Your task to perform on an android device: open app "Indeed Job Search" (install if not already installed) and enter user name: "quixotic@inbox.com" and password: "microphones" Image 0: 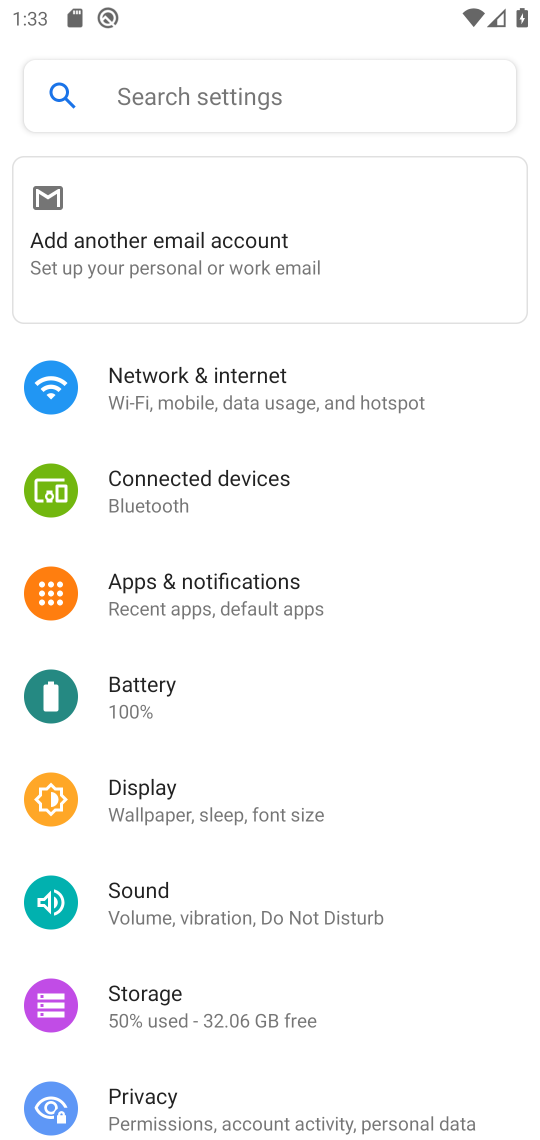
Step 0: press home button
Your task to perform on an android device: open app "Indeed Job Search" (install if not already installed) and enter user name: "quixotic@inbox.com" and password: "microphones" Image 1: 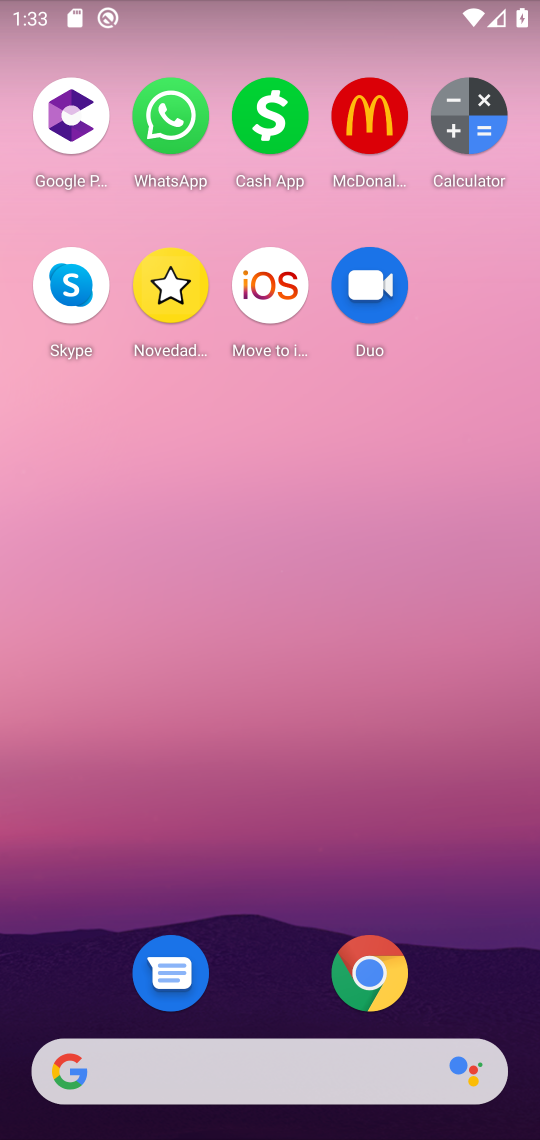
Step 1: click (271, 1022)
Your task to perform on an android device: open app "Indeed Job Search" (install if not already installed) and enter user name: "quixotic@inbox.com" and password: "microphones" Image 2: 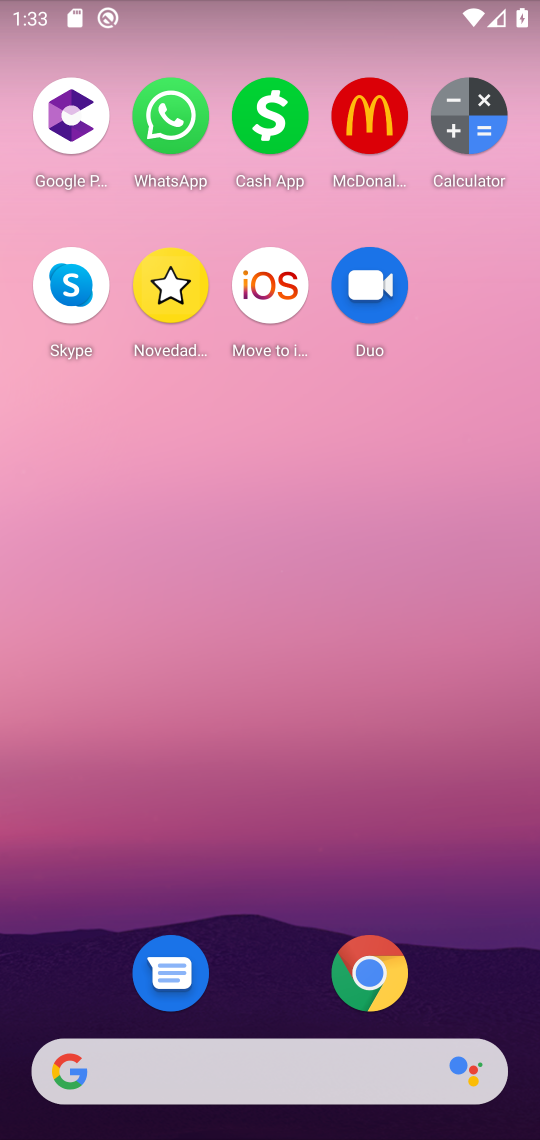
Step 2: drag from (271, 1022) to (283, 113)
Your task to perform on an android device: open app "Indeed Job Search" (install if not already installed) and enter user name: "quixotic@inbox.com" and password: "microphones" Image 3: 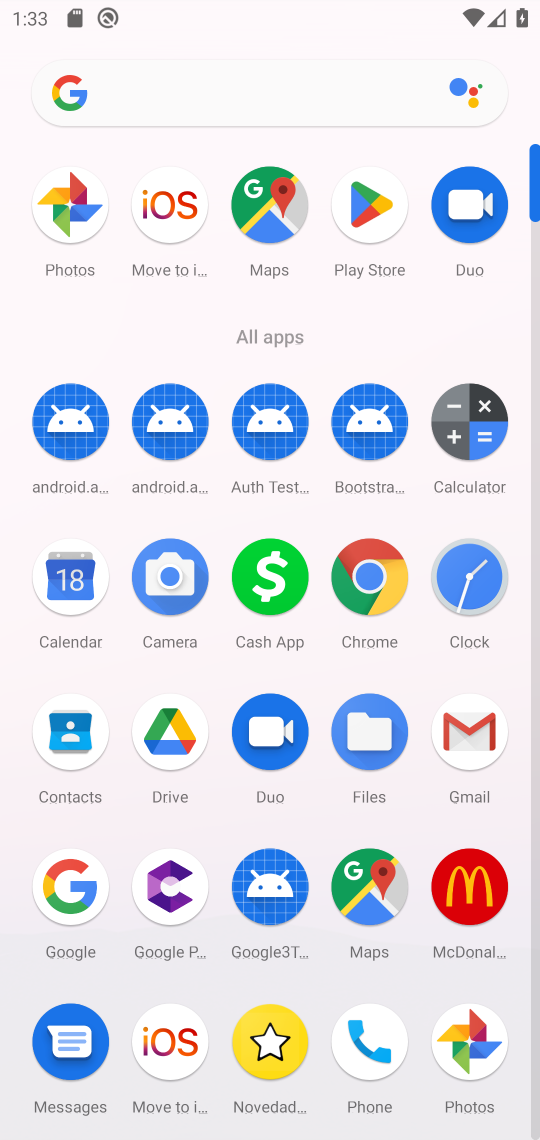
Step 3: click (376, 205)
Your task to perform on an android device: open app "Indeed Job Search" (install if not already installed) and enter user name: "quixotic@inbox.com" and password: "microphones" Image 4: 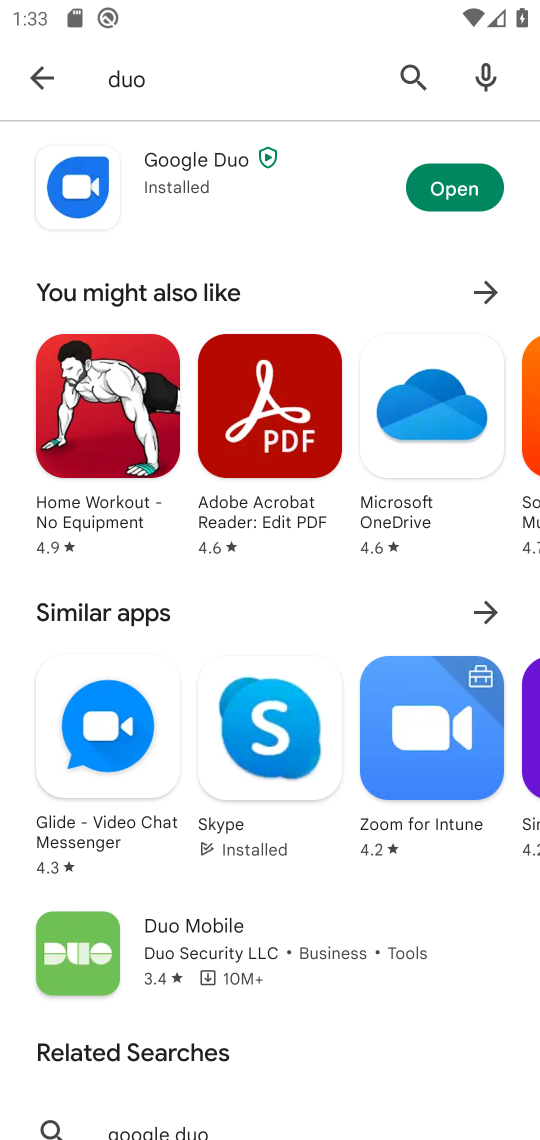
Step 4: click (406, 90)
Your task to perform on an android device: open app "Indeed Job Search" (install if not already installed) and enter user name: "quixotic@inbox.com" and password: "microphones" Image 5: 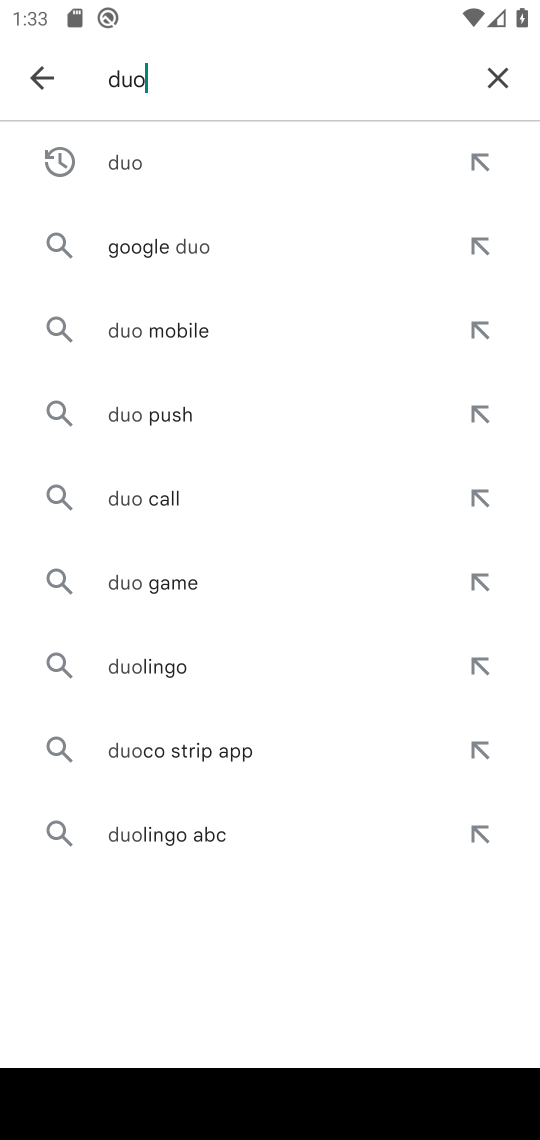
Step 5: click (504, 75)
Your task to perform on an android device: open app "Indeed Job Search" (install if not already installed) and enter user name: "quixotic@inbox.com" and password: "microphones" Image 6: 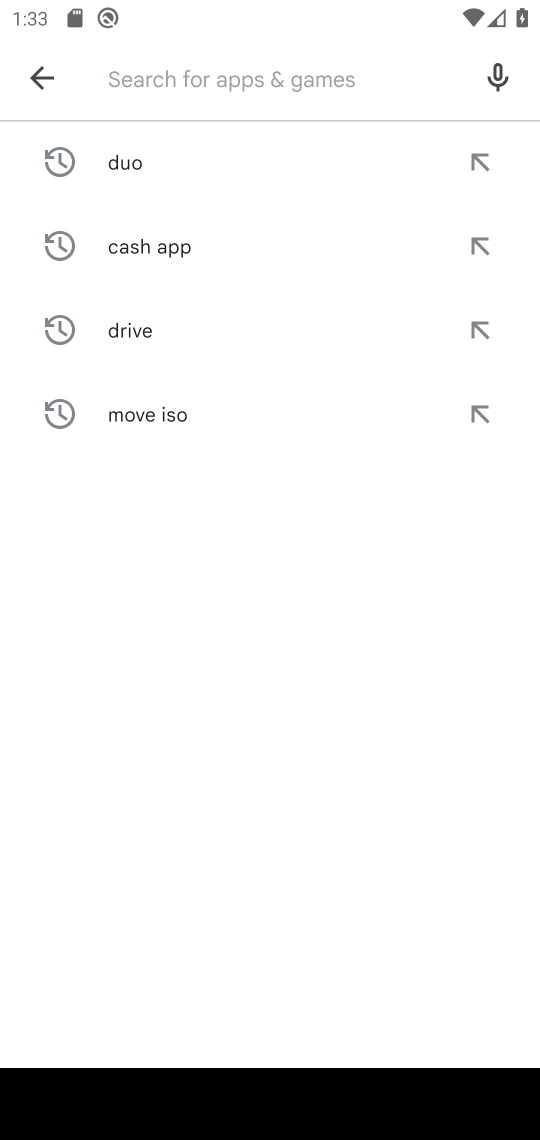
Step 6: type "indeed"
Your task to perform on an android device: open app "Indeed Job Search" (install if not already installed) and enter user name: "quixotic@inbox.com" and password: "microphones" Image 7: 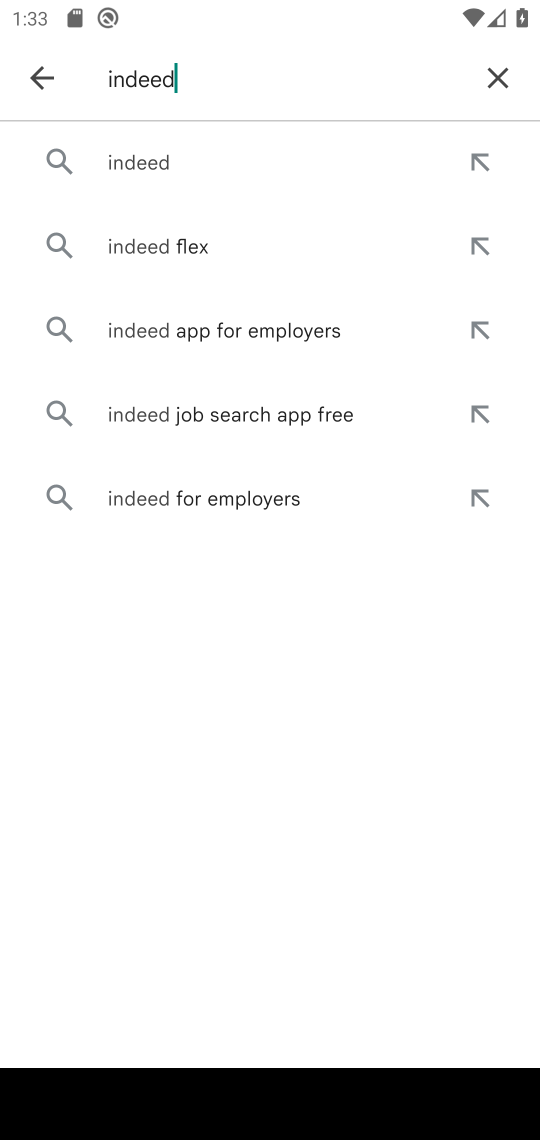
Step 7: click (227, 169)
Your task to perform on an android device: open app "Indeed Job Search" (install if not already installed) and enter user name: "quixotic@inbox.com" and password: "microphones" Image 8: 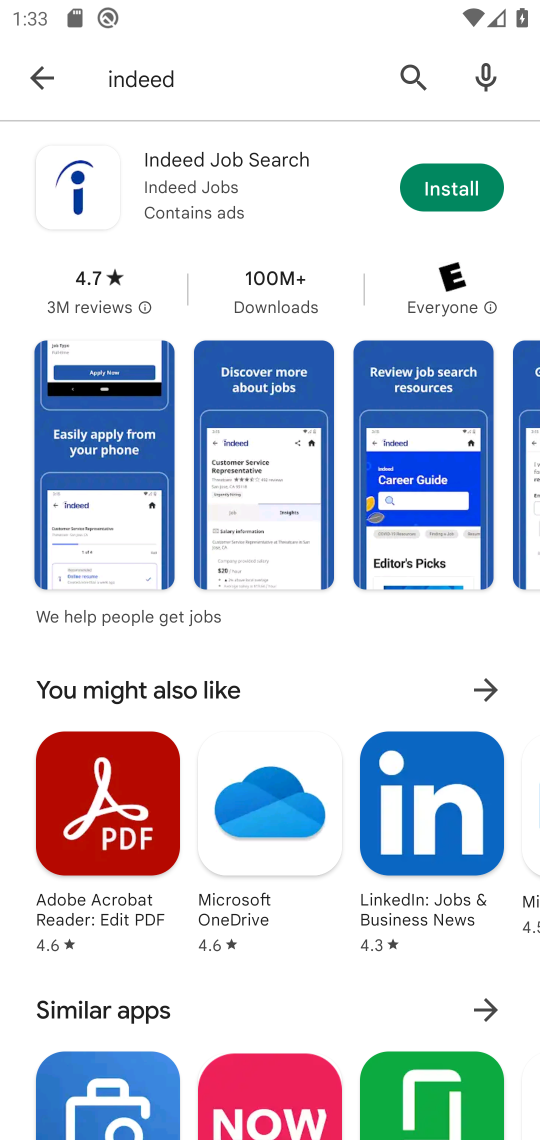
Step 8: click (435, 190)
Your task to perform on an android device: open app "Indeed Job Search" (install if not already installed) and enter user name: "quixotic@inbox.com" and password: "microphones" Image 9: 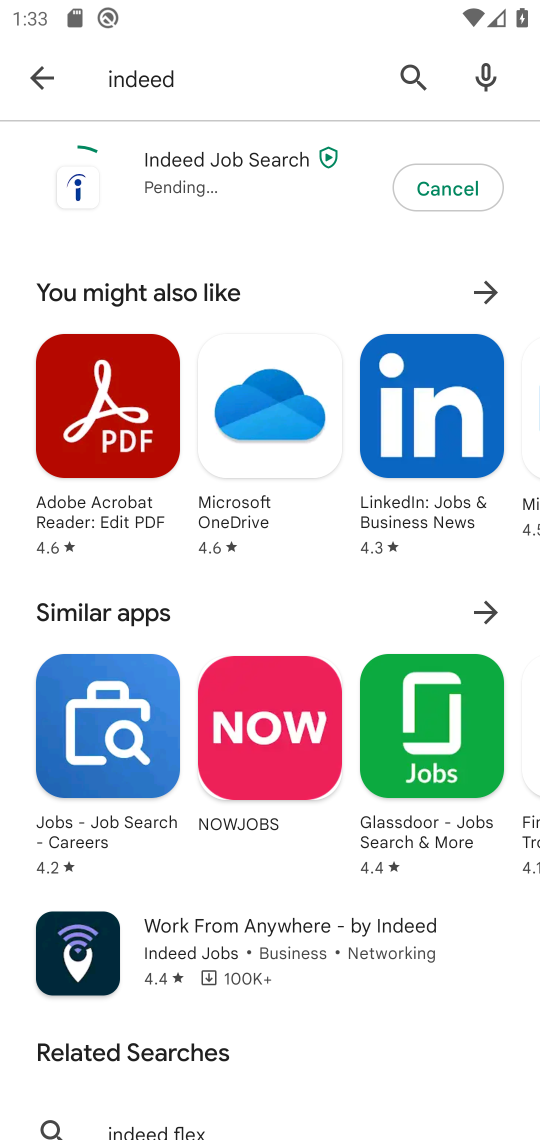
Step 9: task complete